Your task to perform on an android device: find snoozed emails in the gmail app Image 0: 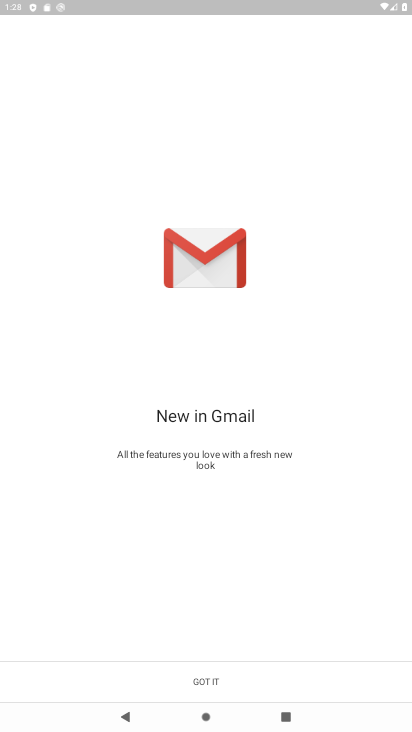
Step 0: press home button
Your task to perform on an android device: find snoozed emails in the gmail app Image 1: 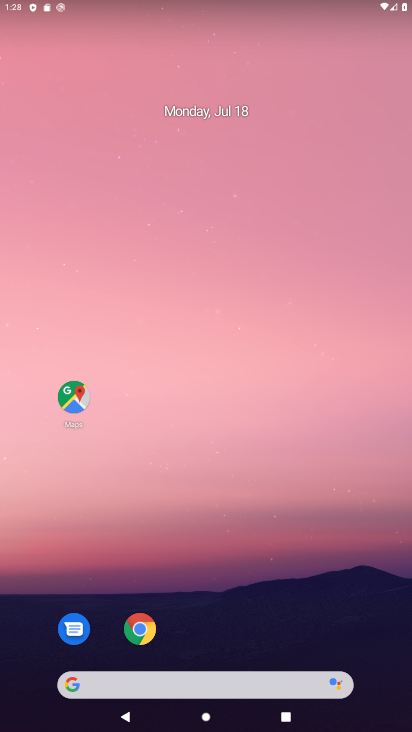
Step 1: drag from (220, 646) to (255, 19)
Your task to perform on an android device: find snoozed emails in the gmail app Image 2: 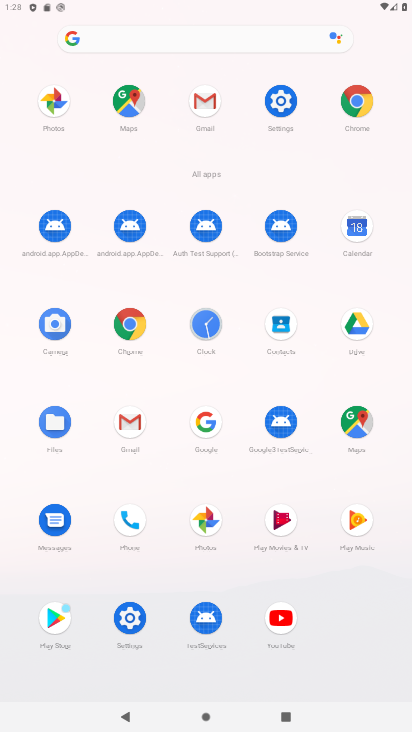
Step 2: click (131, 422)
Your task to perform on an android device: find snoozed emails in the gmail app Image 3: 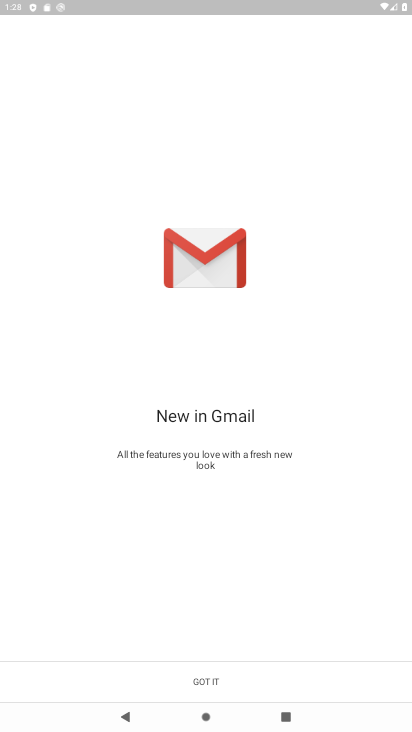
Step 3: click (212, 684)
Your task to perform on an android device: find snoozed emails in the gmail app Image 4: 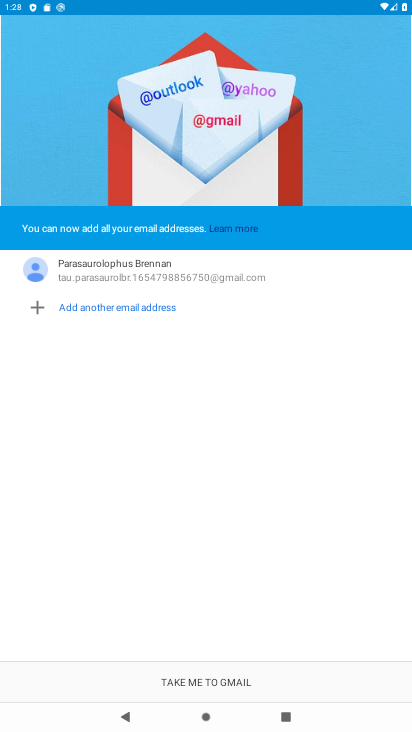
Step 4: click (210, 682)
Your task to perform on an android device: find snoozed emails in the gmail app Image 5: 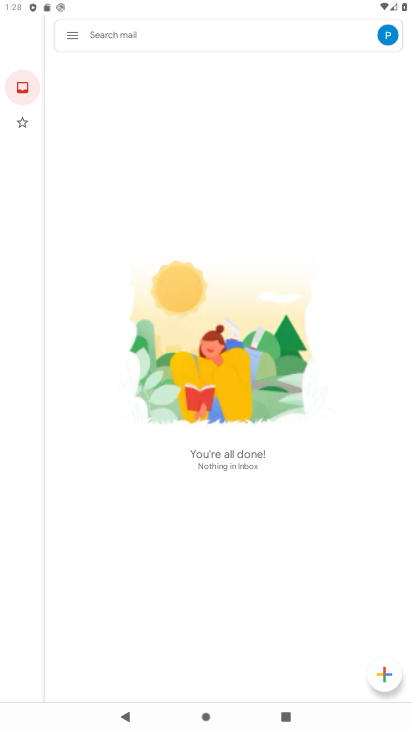
Step 5: click (72, 30)
Your task to perform on an android device: find snoozed emails in the gmail app Image 6: 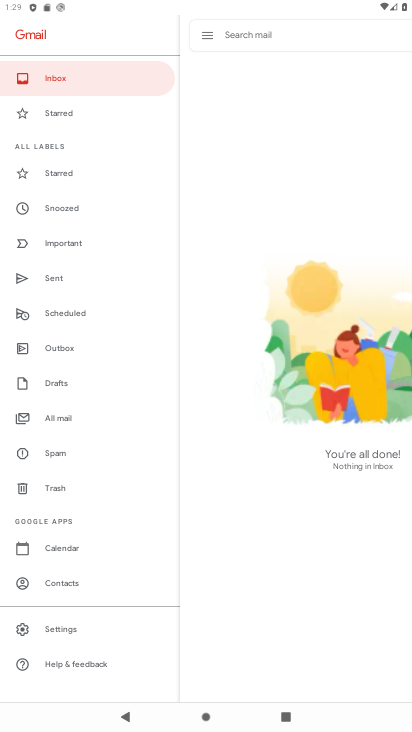
Step 6: click (92, 204)
Your task to perform on an android device: find snoozed emails in the gmail app Image 7: 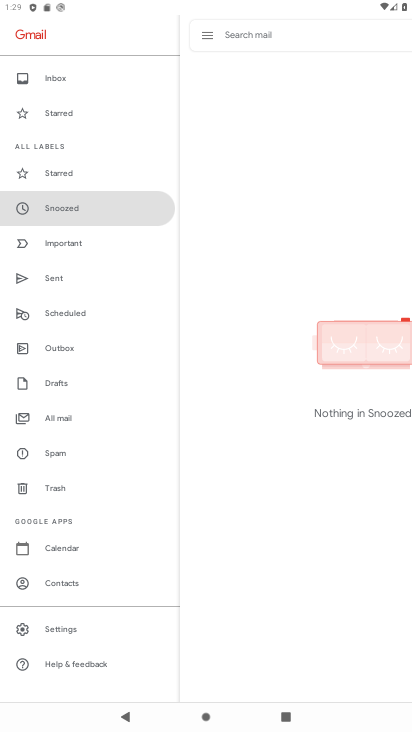
Step 7: task complete